Your task to perform on an android device: Open Amazon Image 0: 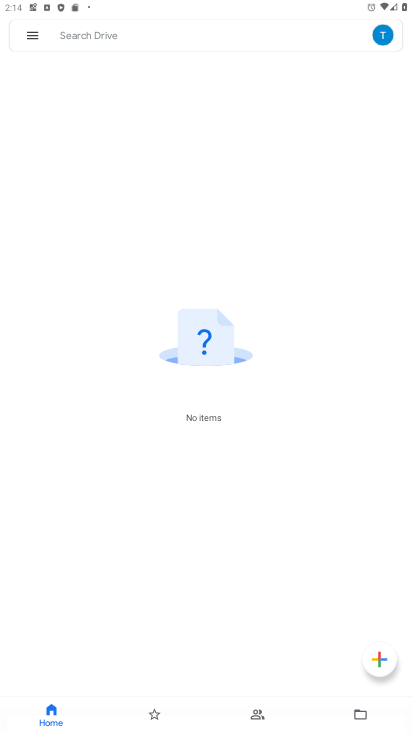
Step 0: press home button
Your task to perform on an android device: Open Amazon Image 1: 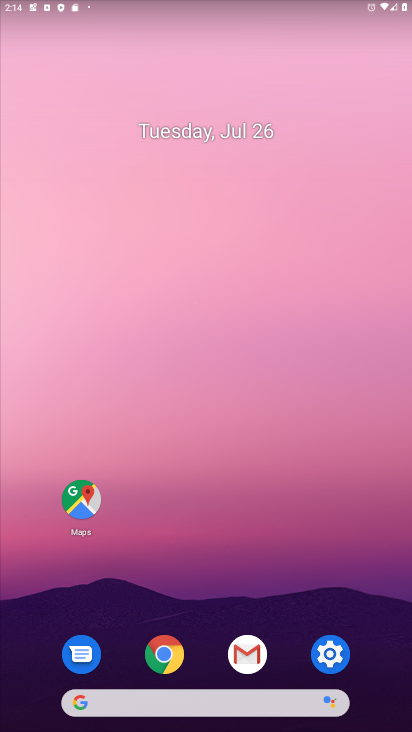
Step 1: click (181, 654)
Your task to perform on an android device: Open Amazon Image 2: 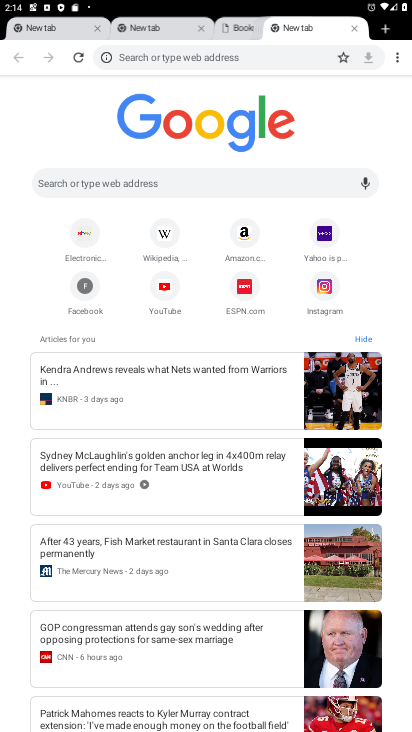
Step 2: click (244, 237)
Your task to perform on an android device: Open Amazon Image 3: 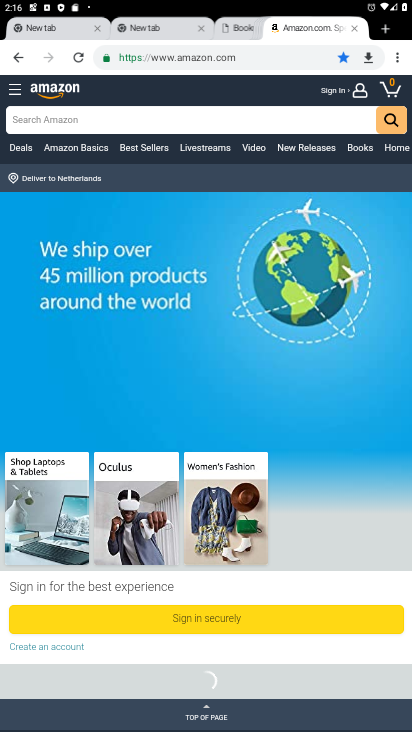
Step 3: task complete